Your task to perform on an android device: Open Amazon Image 0: 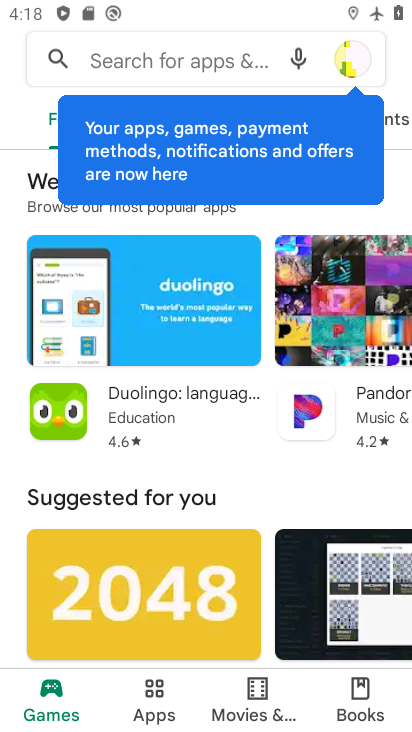
Step 0: press home button
Your task to perform on an android device: Open Amazon Image 1: 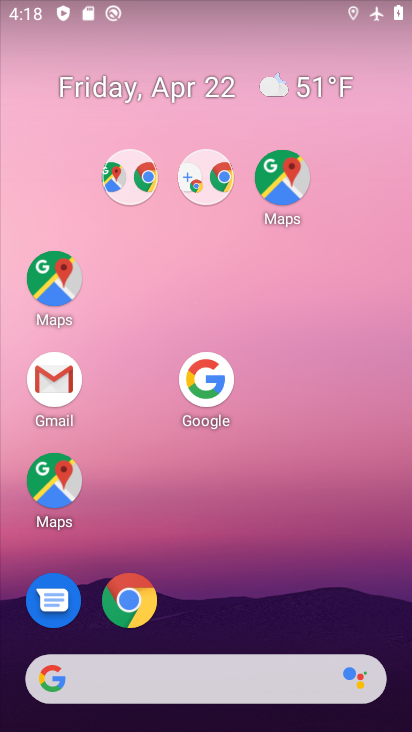
Step 1: drag from (248, 593) to (45, 97)
Your task to perform on an android device: Open Amazon Image 2: 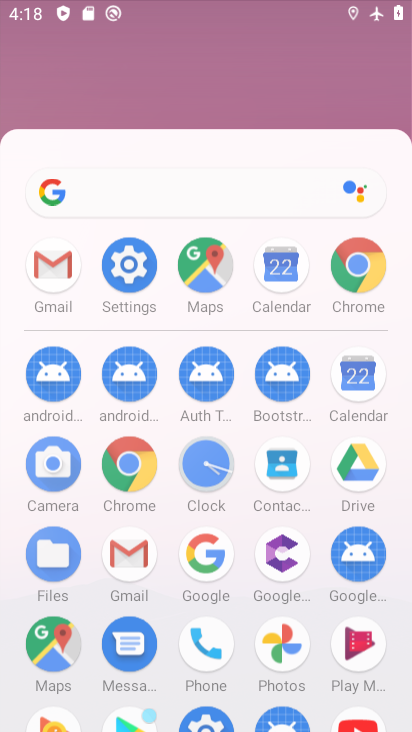
Step 2: drag from (148, 338) to (95, 91)
Your task to perform on an android device: Open Amazon Image 3: 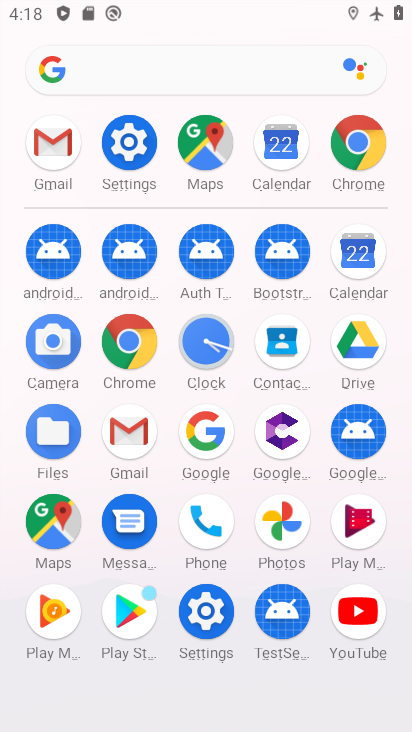
Step 3: click (358, 145)
Your task to perform on an android device: Open Amazon Image 4: 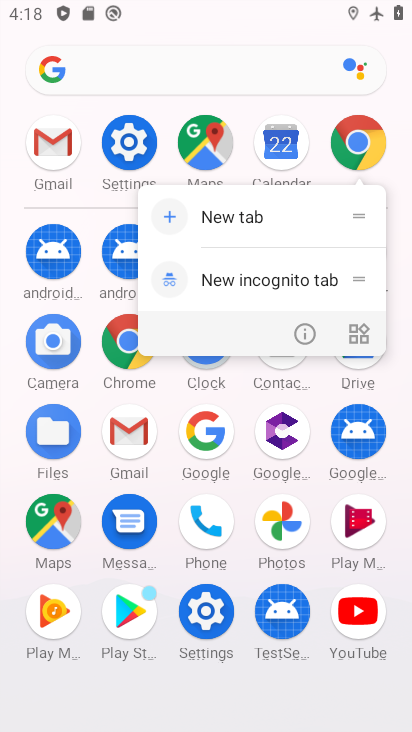
Step 4: click (359, 147)
Your task to perform on an android device: Open Amazon Image 5: 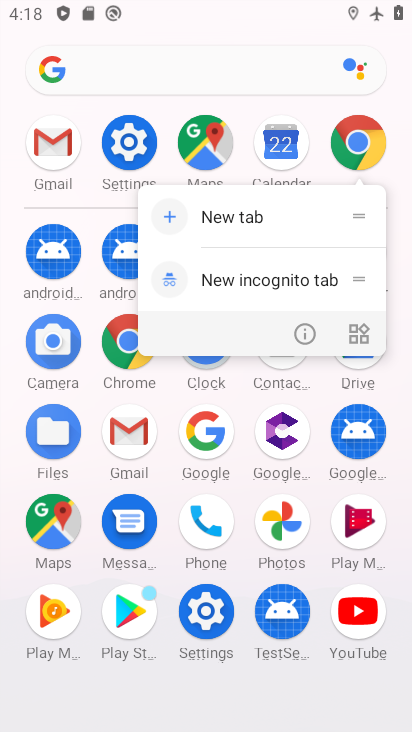
Step 5: click (354, 143)
Your task to perform on an android device: Open Amazon Image 6: 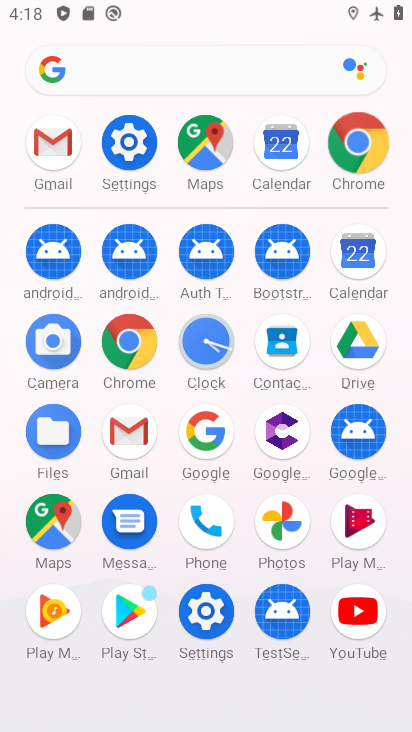
Step 6: click (356, 141)
Your task to perform on an android device: Open Amazon Image 7: 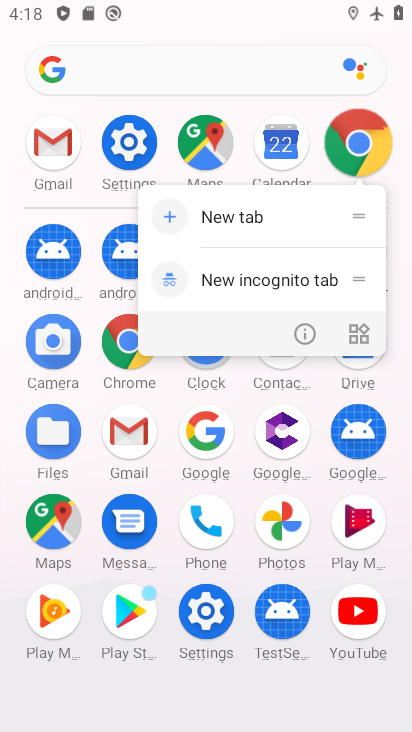
Step 7: click (366, 148)
Your task to perform on an android device: Open Amazon Image 8: 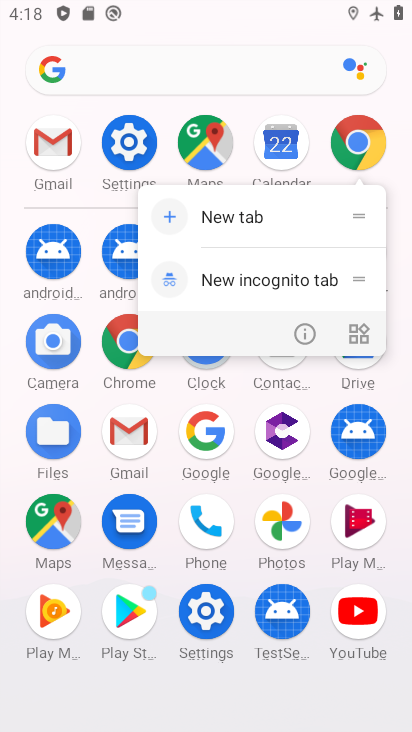
Step 8: click (361, 146)
Your task to perform on an android device: Open Amazon Image 9: 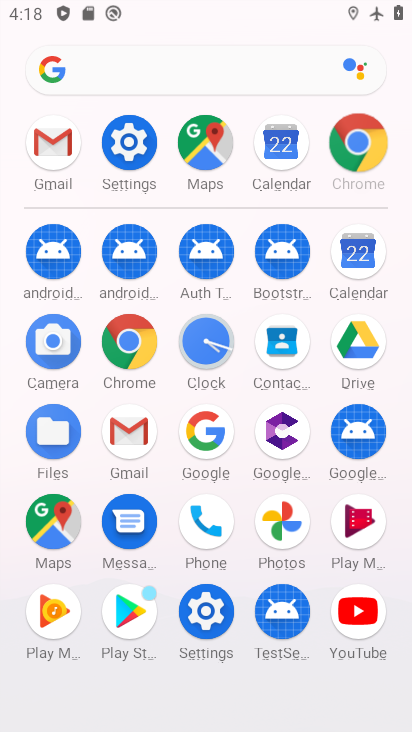
Step 9: click (361, 146)
Your task to perform on an android device: Open Amazon Image 10: 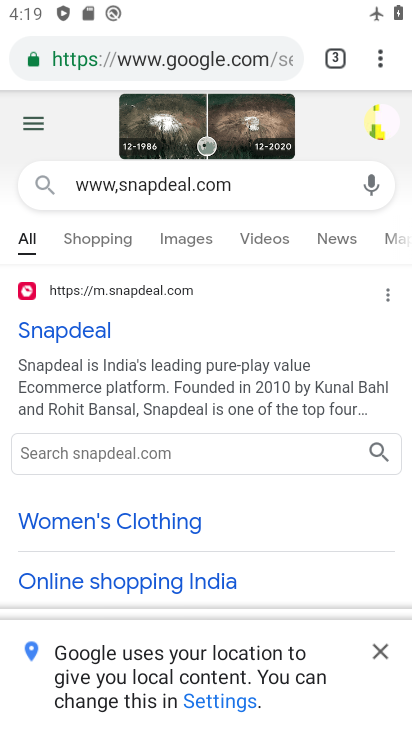
Step 10: drag from (379, 59) to (180, 110)
Your task to perform on an android device: Open Amazon Image 11: 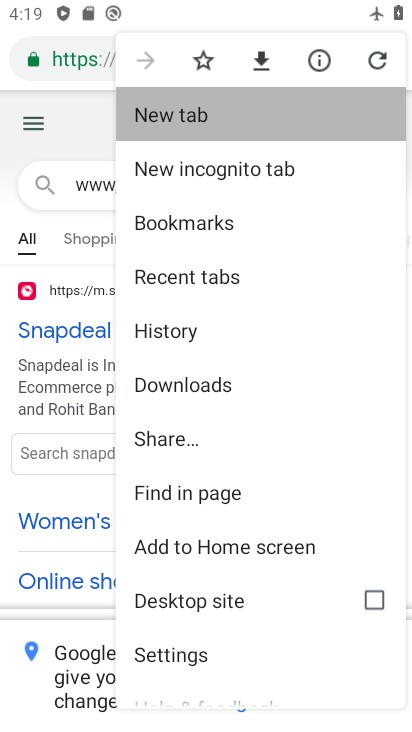
Step 11: click (183, 110)
Your task to perform on an android device: Open Amazon Image 12: 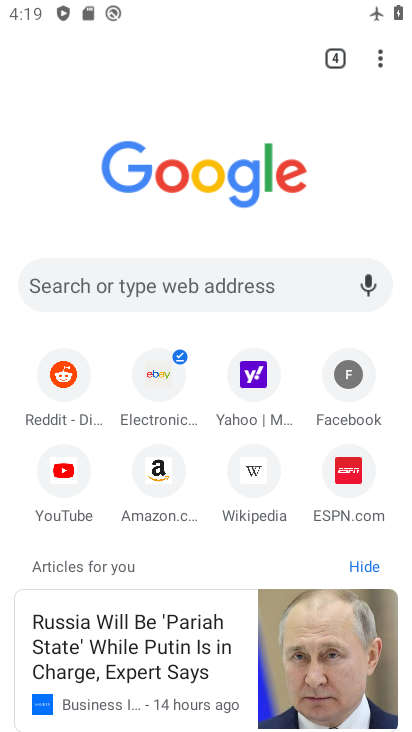
Step 12: click (163, 473)
Your task to perform on an android device: Open Amazon Image 13: 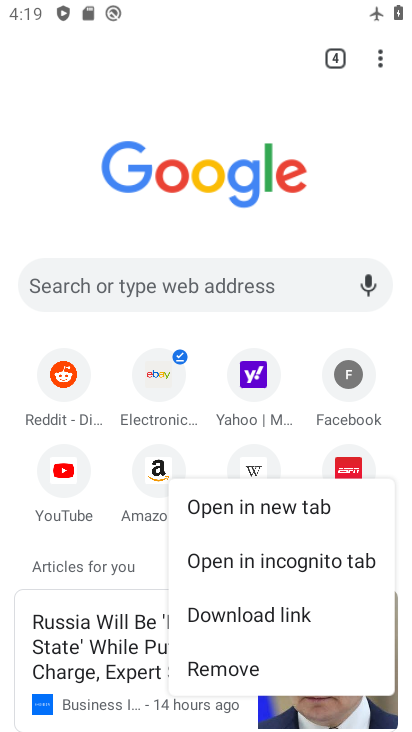
Step 13: click (163, 473)
Your task to perform on an android device: Open Amazon Image 14: 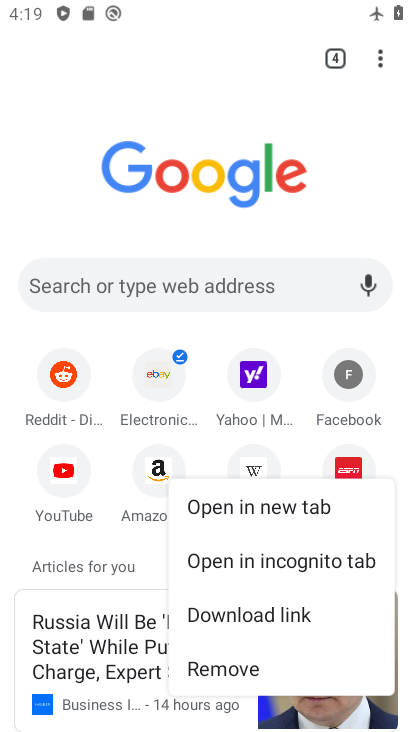
Step 14: click (164, 473)
Your task to perform on an android device: Open Amazon Image 15: 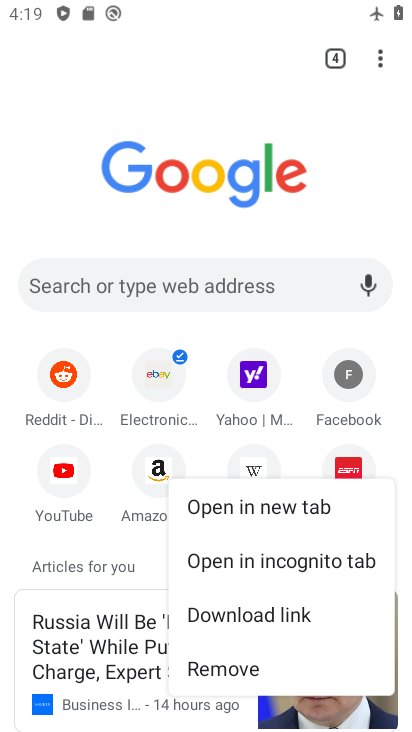
Step 15: click (164, 473)
Your task to perform on an android device: Open Amazon Image 16: 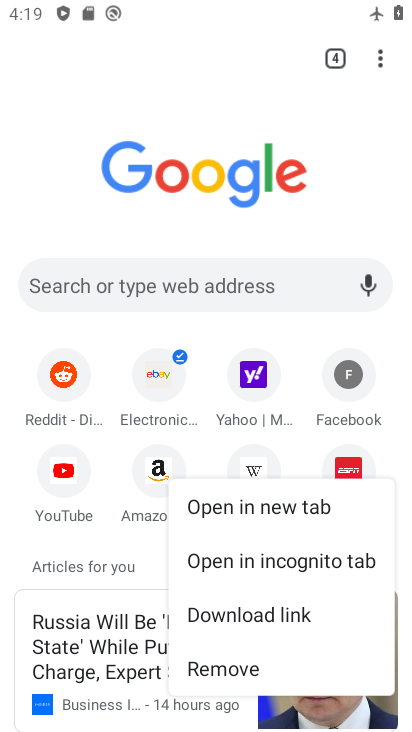
Step 16: click (157, 451)
Your task to perform on an android device: Open Amazon Image 17: 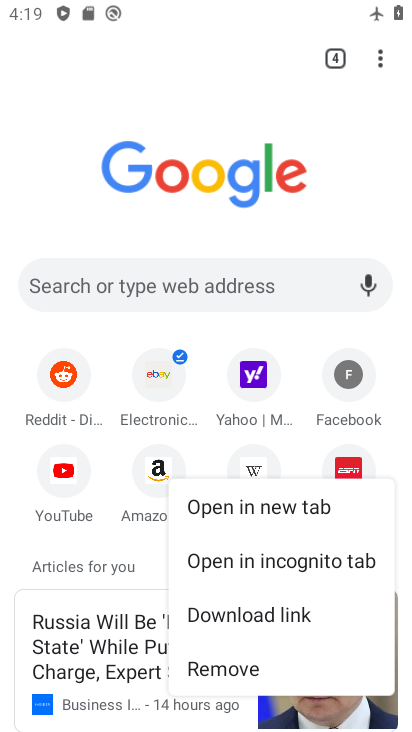
Step 17: drag from (157, 468) to (167, 517)
Your task to perform on an android device: Open Amazon Image 18: 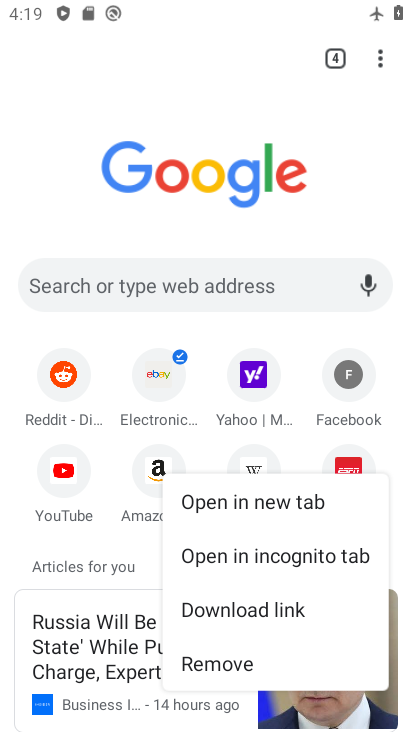
Step 18: click (160, 477)
Your task to perform on an android device: Open Amazon Image 19: 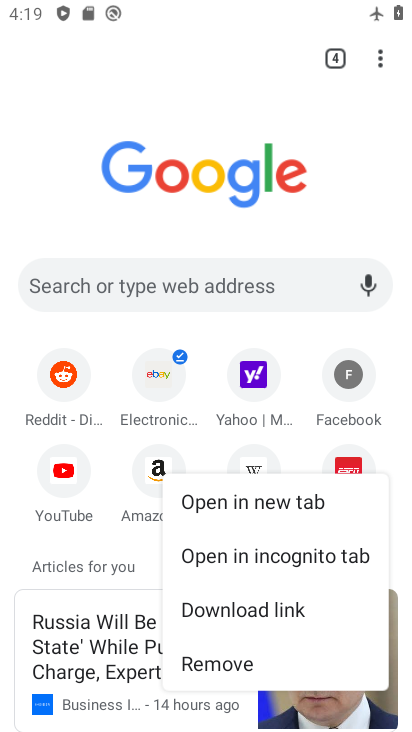
Step 19: click (161, 483)
Your task to perform on an android device: Open Amazon Image 20: 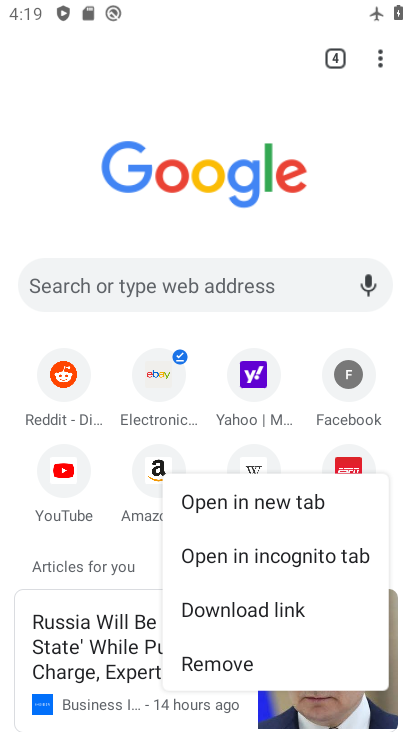
Step 20: click (162, 461)
Your task to perform on an android device: Open Amazon Image 21: 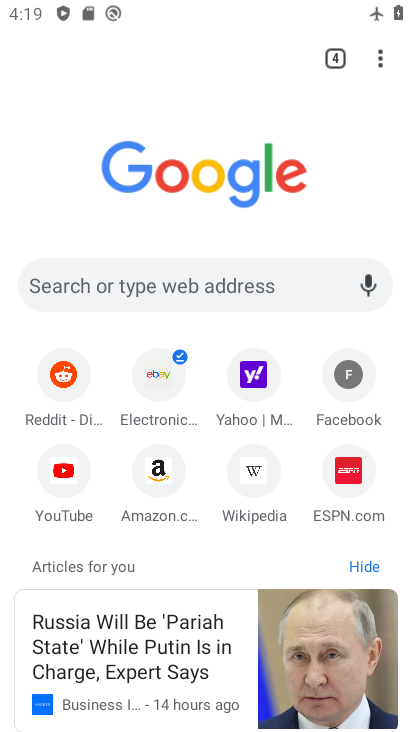
Step 21: click (168, 467)
Your task to perform on an android device: Open Amazon Image 22: 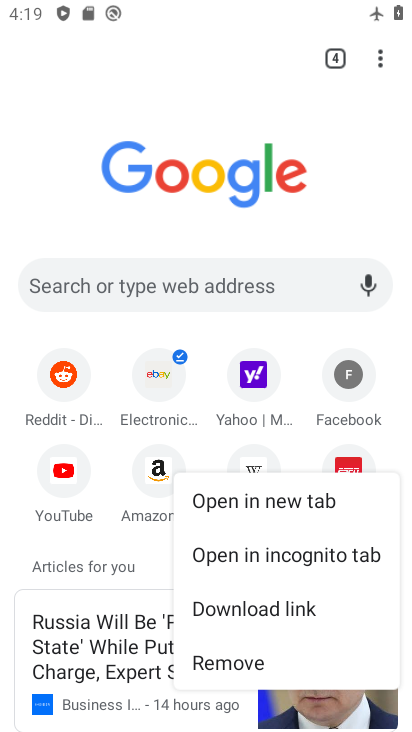
Step 22: click (173, 480)
Your task to perform on an android device: Open Amazon Image 23: 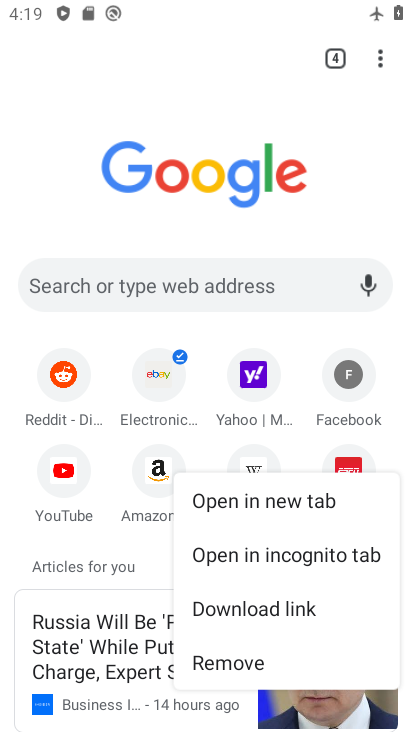
Step 23: click (173, 480)
Your task to perform on an android device: Open Amazon Image 24: 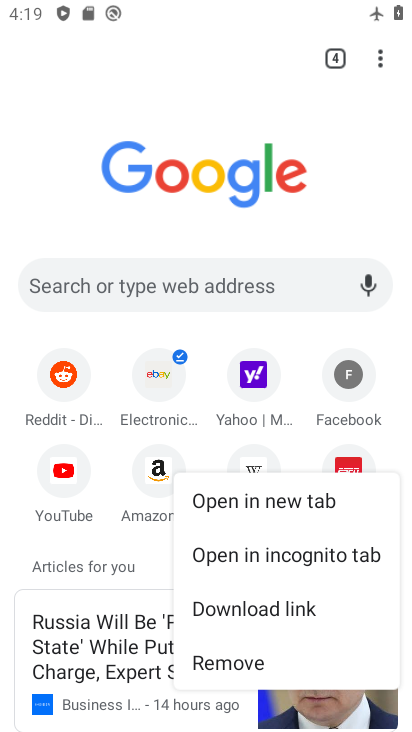
Step 24: click (173, 480)
Your task to perform on an android device: Open Amazon Image 25: 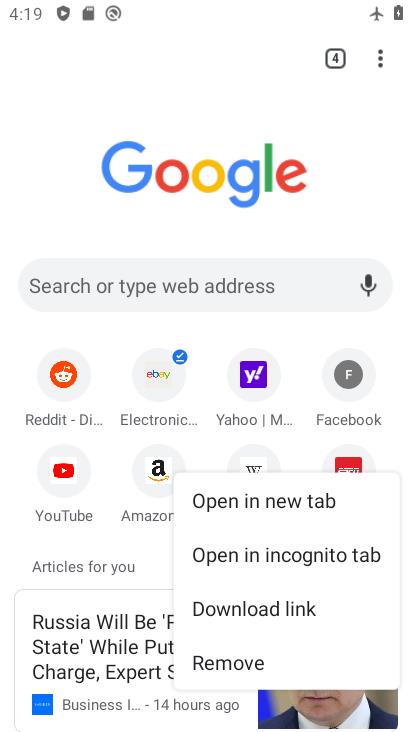
Step 25: click (174, 481)
Your task to perform on an android device: Open Amazon Image 26: 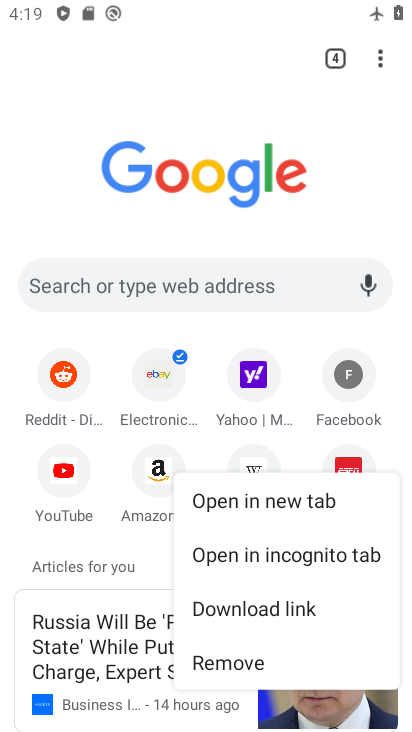
Step 26: click (214, 490)
Your task to perform on an android device: Open Amazon Image 27: 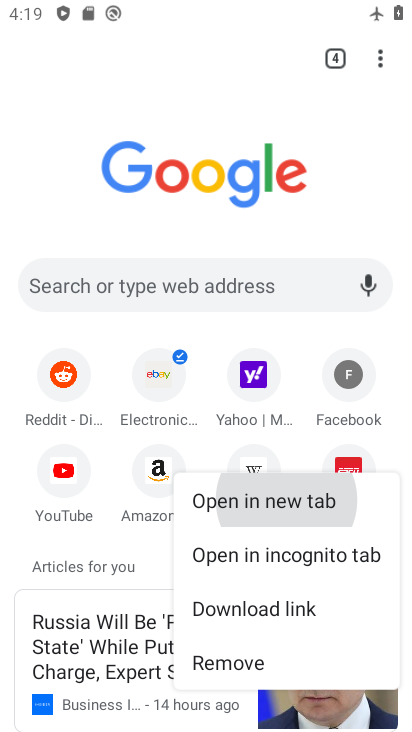
Step 27: click (215, 491)
Your task to perform on an android device: Open Amazon Image 28: 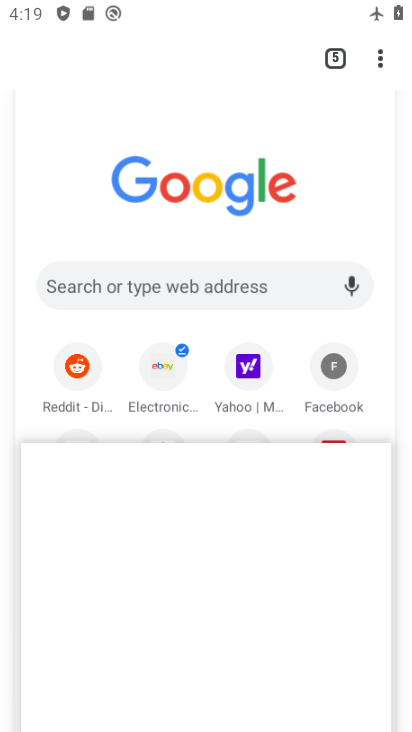
Step 28: click (227, 506)
Your task to perform on an android device: Open Amazon Image 29: 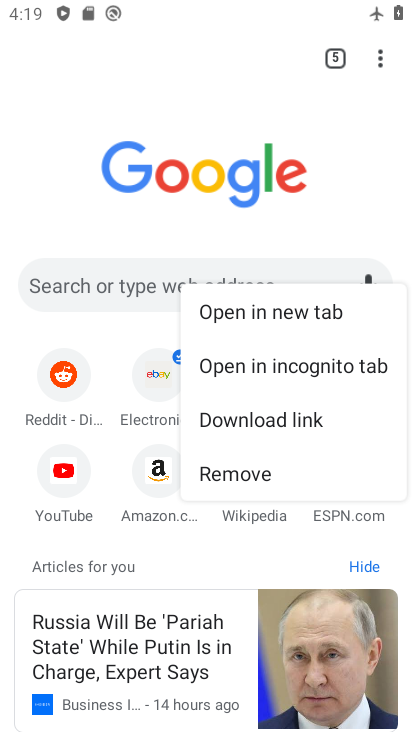
Step 29: click (272, 312)
Your task to perform on an android device: Open Amazon Image 30: 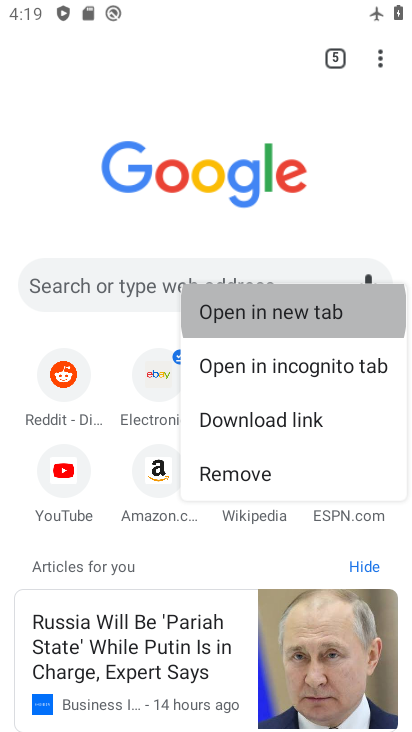
Step 30: click (272, 313)
Your task to perform on an android device: Open Amazon Image 31: 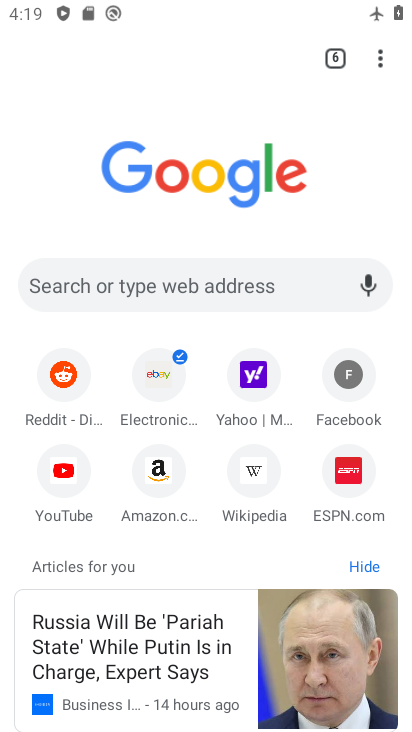
Step 31: click (152, 473)
Your task to perform on an android device: Open Amazon Image 32: 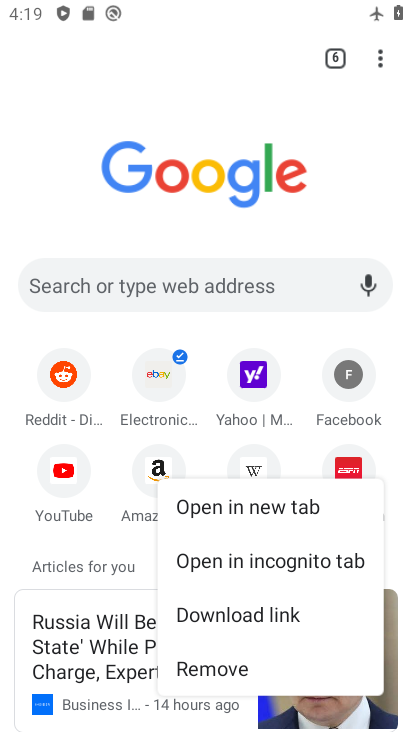
Step 32: click (232, 507)
Your task to perform on an android device: Open Amazon Image 33: 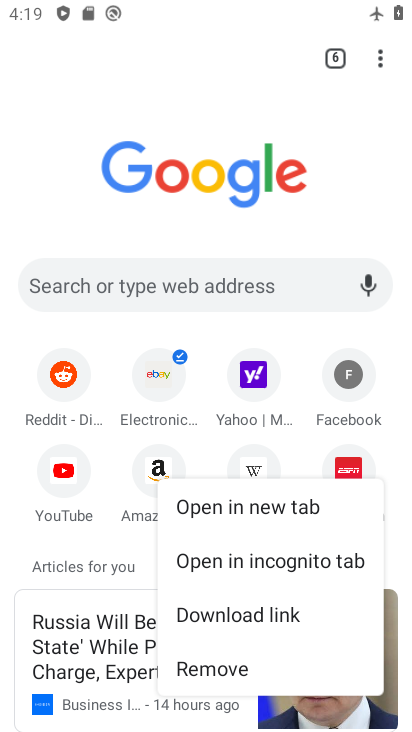
Step 33: click (233, 506)
Your task to perform on an android device: Open Amazon Image 34: 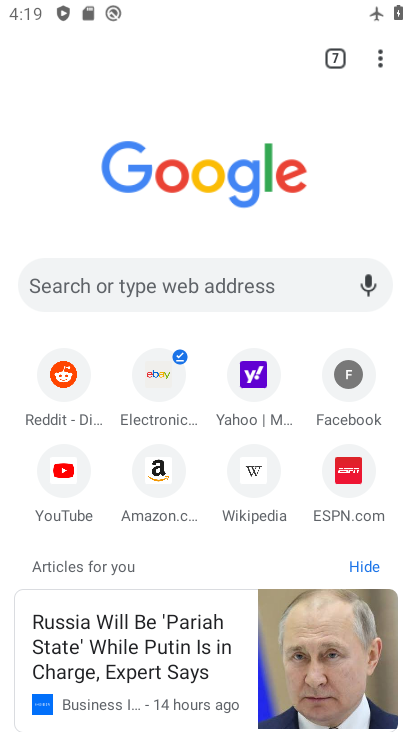
Step 34: click (165, 469)
Your task to perform on an android device: Open Amazon Image 35: 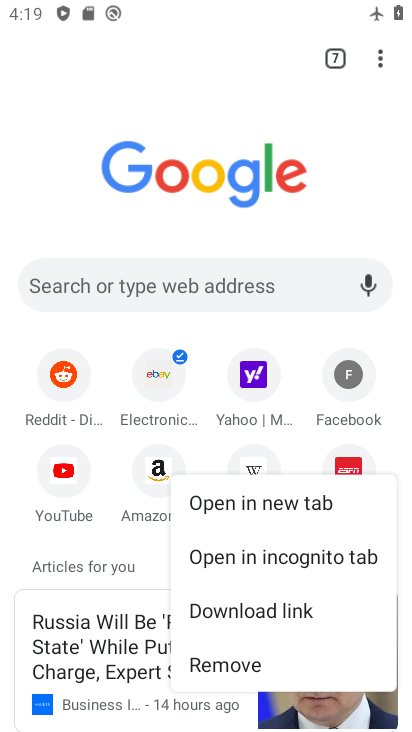
Step 35: click (239, 496)
Your task to perform on an android device: Open Amazon Image 36: 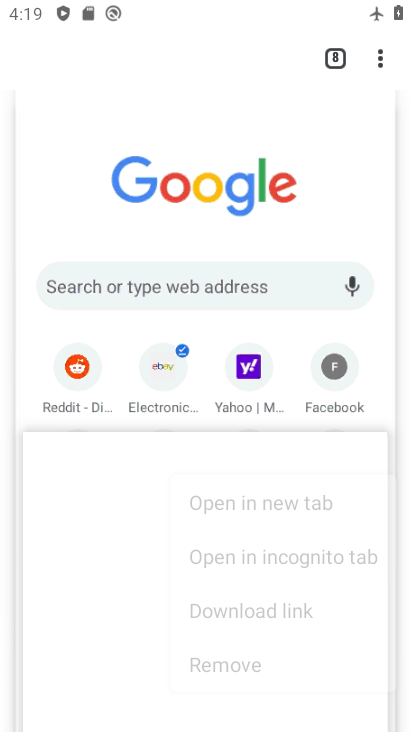
Step 36: click (240, 497)
Your task to perform on an android device: Open Amazon Image 37: 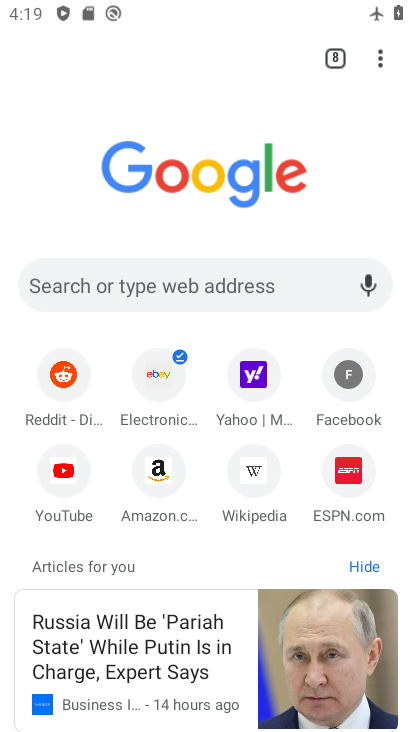
Step 37: click (170, 467)
Your task to perform on an android device: Open Amazon Image 38: 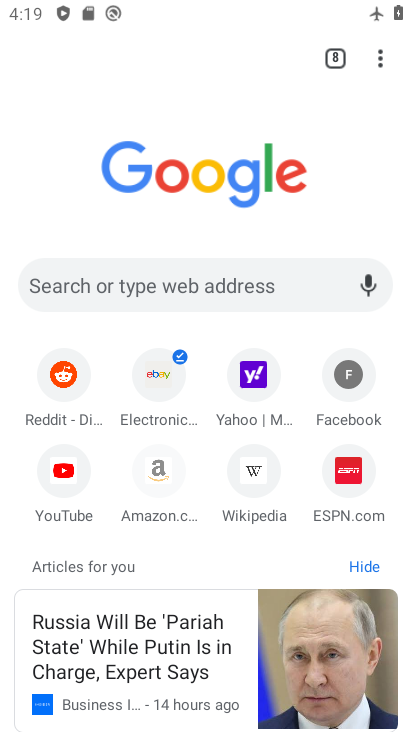
Step 38: click (169, 467)
Your task to perform on an android device: Open Amazon Image 39: 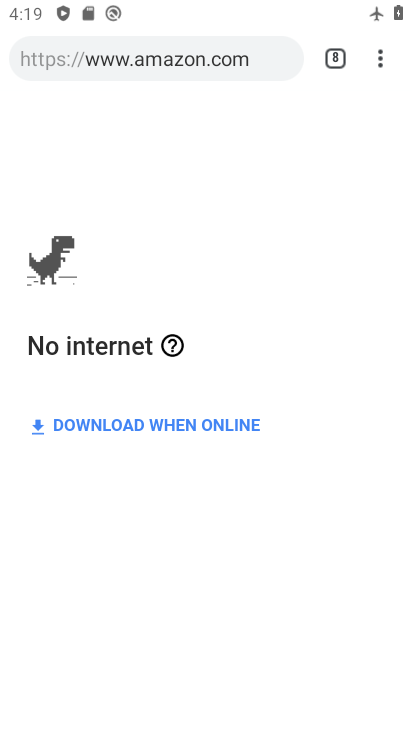
Step 39: task complete